Your task to perform on an android device: change your default location settings in chrome Image 0: 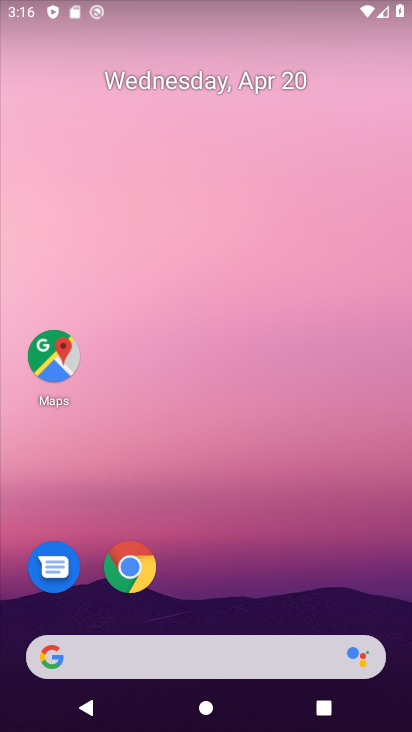
Step 0: drag from (360, 530) to (229, 85)
Your task to perform on an android device: change your default location settings in chrome Image 1: 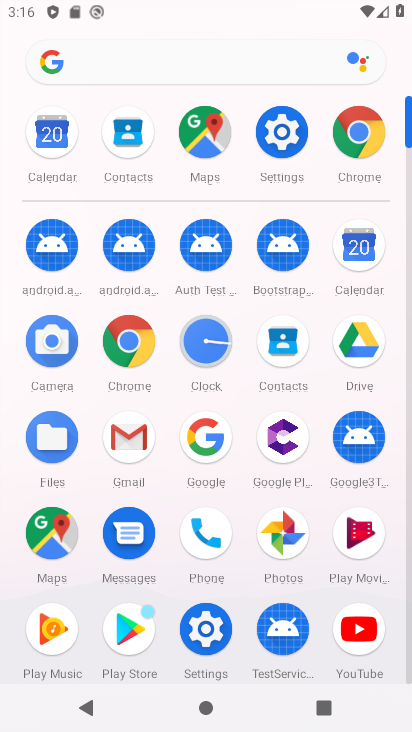
Step 1: click (352, 137)
Your task to perform on an android device: change your default location settings in chrome Image 2: 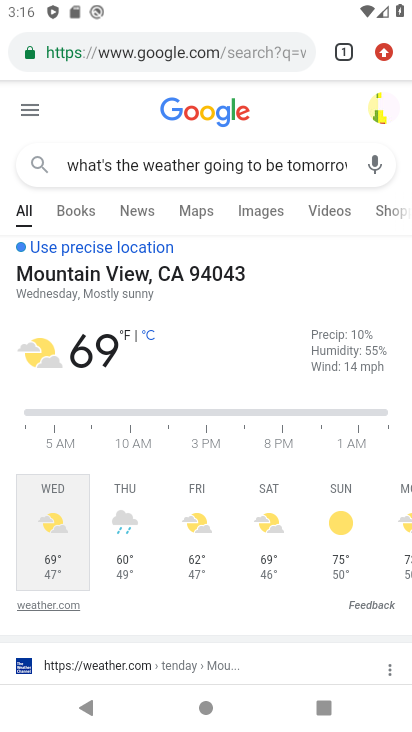
Step 2: click (389, 74)
Your task to perform on an android device: change your default location settings in chrome Image 3: 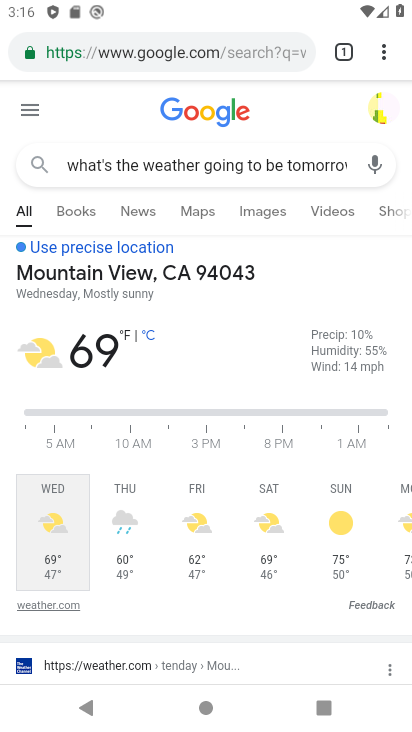
Step 3: drag from (384, 69) to (260, 613)
Your task to perform on an android device: change your default location settings in chrome Image 4: 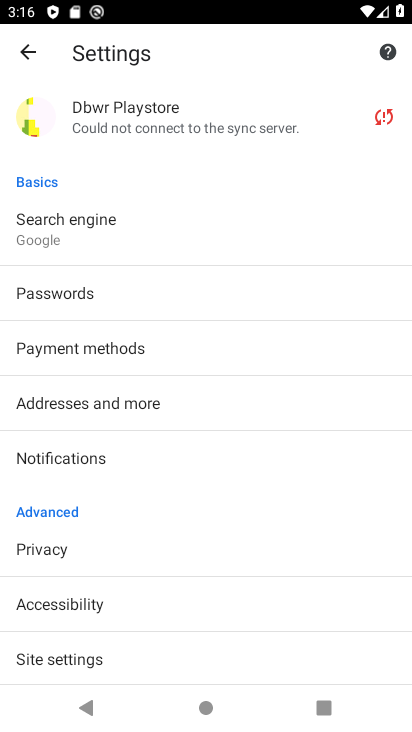
Step 4: drag from (270, 656) to (219, 314)
Your task to perform on an android device: change your default location settings in chrome Image 5: 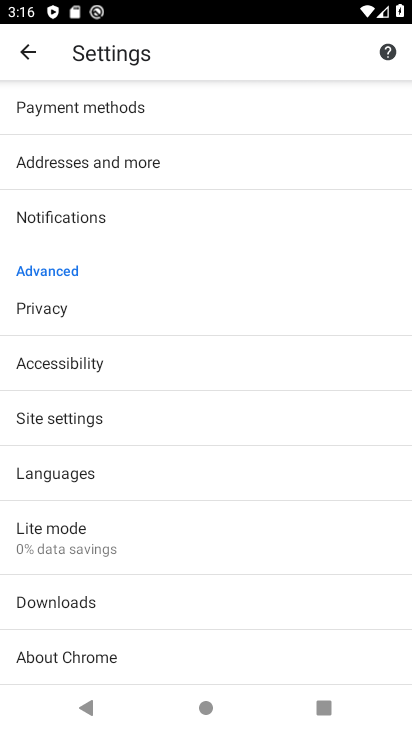
Step 5: click (223, 419)
Your task to perform on an android device: change your default location settings in chrome Image 6: 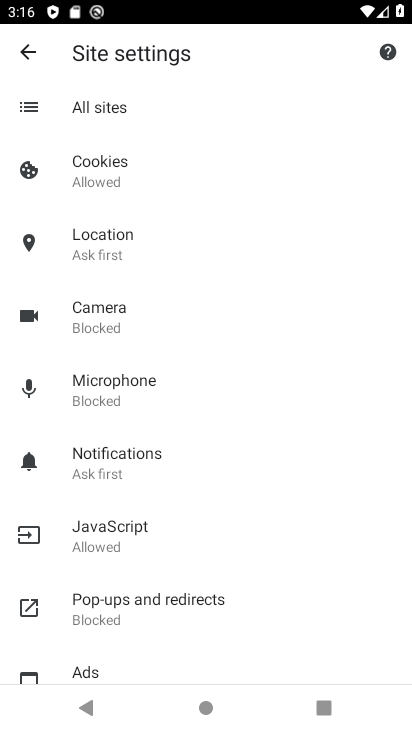
Step 6: click (203, 241)
Your task to perform on an android device: change your default location settings in chrome Image 7: 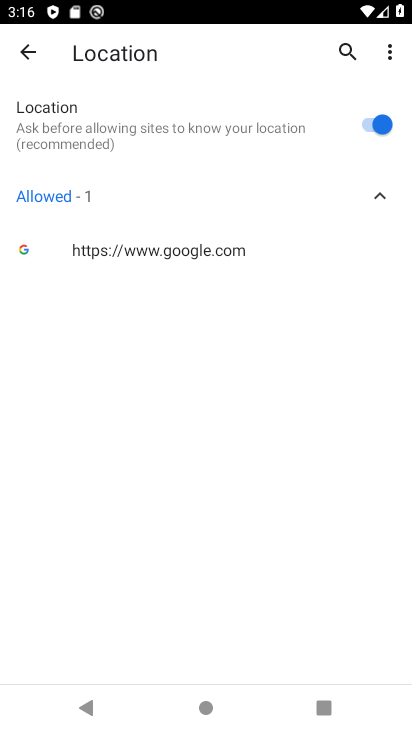
Step 7: task complete